Your task to perform on an android device: turn on airplane mode Image 0: 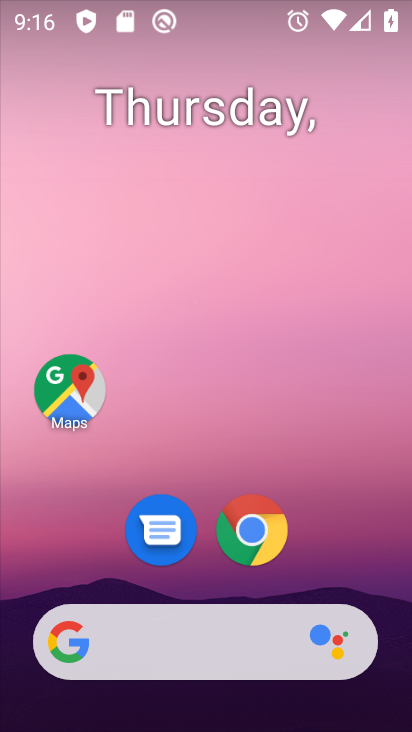
Step 0: drag from (340, 549) to (237, 20)
Your task to perform on an android device: turn on airplane mode Image 1: 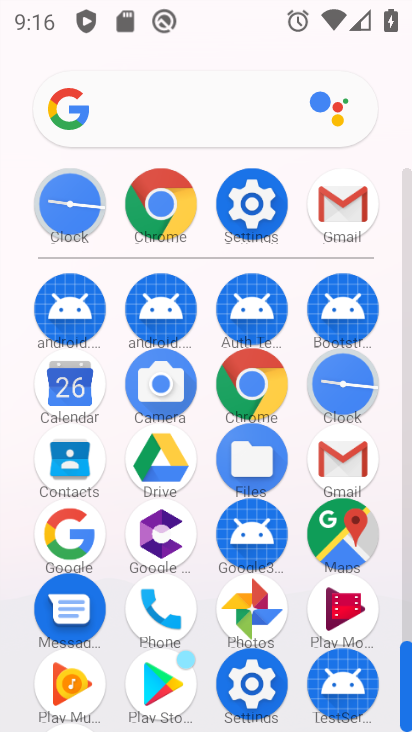
Step 1: drag from (6, 552) to (7, 279)
Your task to perform on an android device: turn on airplane mode Image 2: 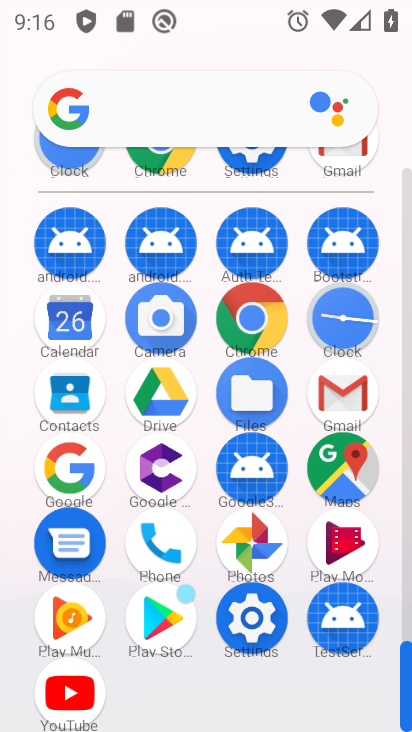
Step 2: click (247, 616)
Your task to perform on an android device: turn on airplane mode Image 3: 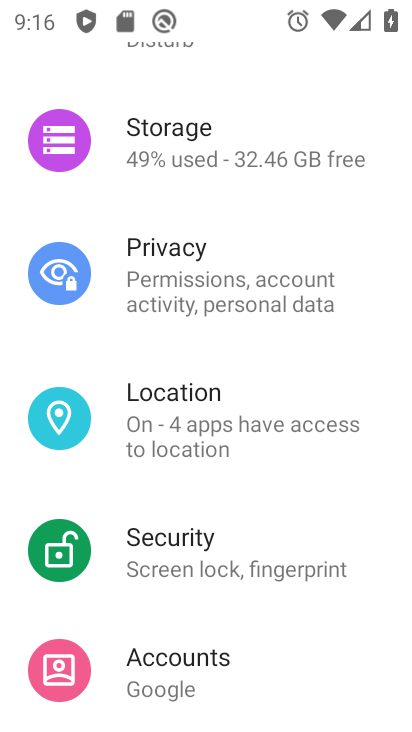
Step 3: drag from (314, 233) to (297, 605)
Your task to perform on an android device: turn on airplane mode Image 4: 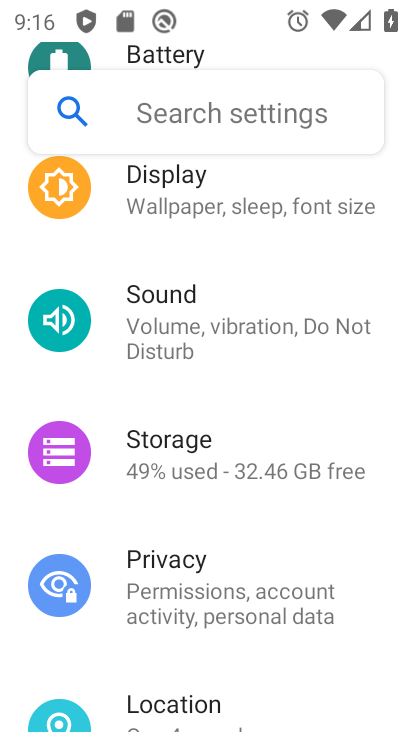
Step 4: drag from (310, 238) to (296, 616)
Your task to perform on an android device: turn on airplane mode Image 5: 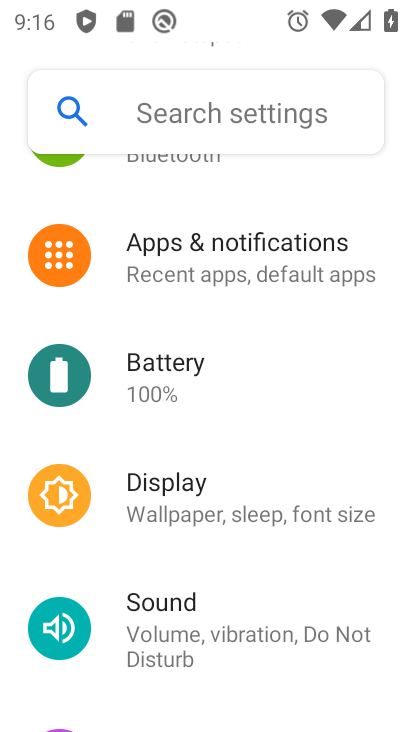
Step 5: drag from (301, 212) to (316, 625)
Your task to perform on an android device: turn on airplane mode Image 6: 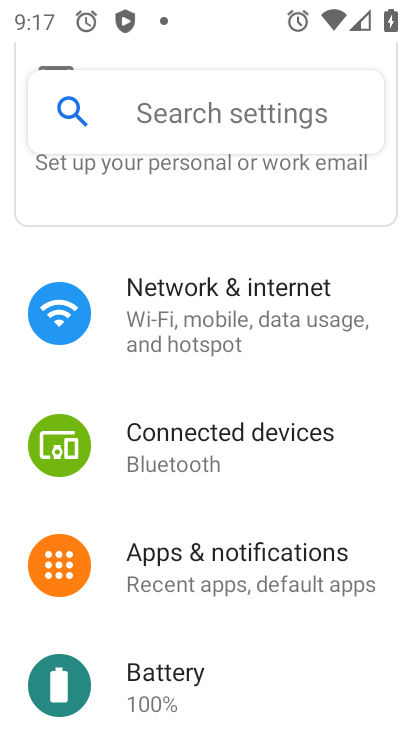
Step 6: click (295, 320)
Your task to perform on an android device: turn on airplane mode Image 7: 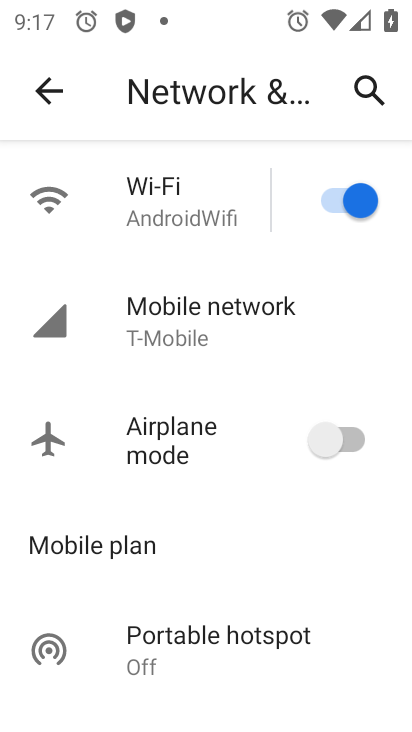
Step 7: click (342, 417)
Your task to perform on an android device: turn on airplane mode Image 8: 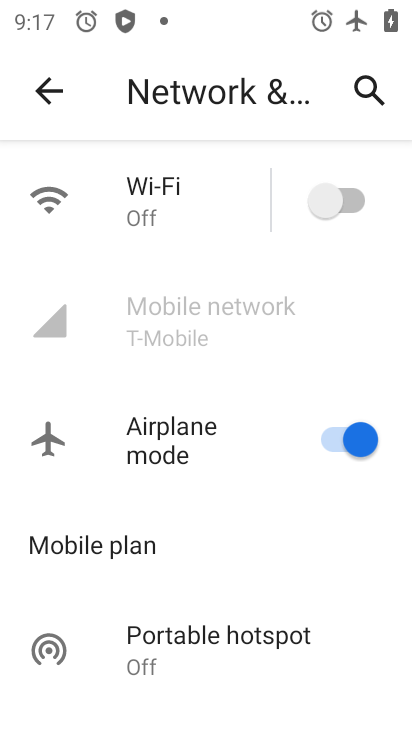
Step 8: task complete